Your task to perform on an android device: Go to battery settings Image 0: 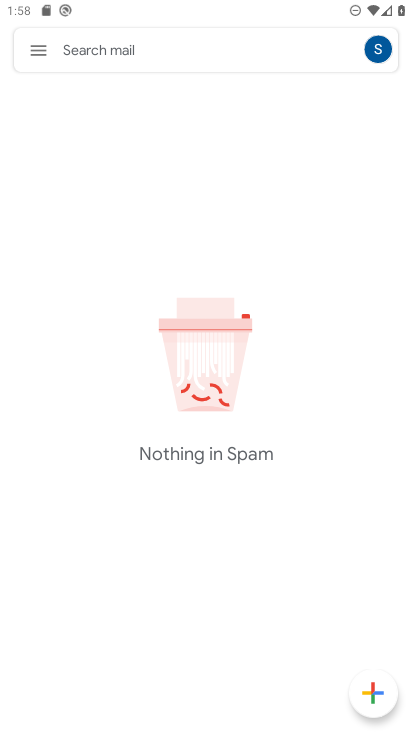
Step 0: press home button
Your task to perform on an android device: Go to battery settings Image 1: 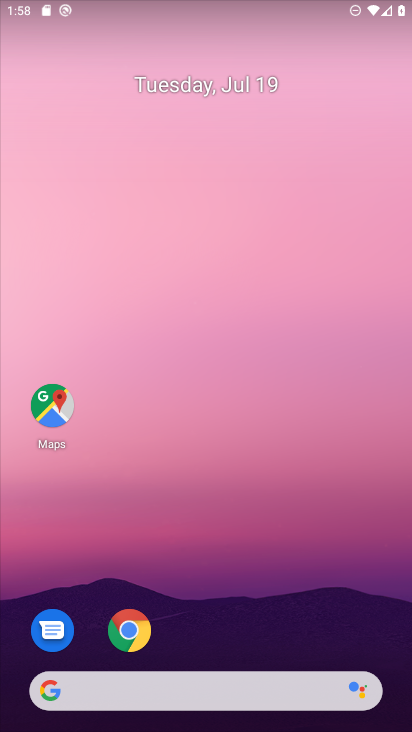
Step 1: drag from (188, 677) to (273, 87)
Your task to perform on an android device: Go to battery settings Image 2: 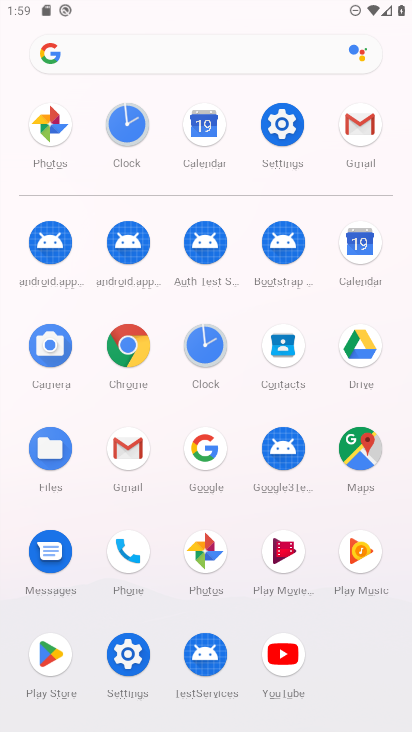
Step 2: click (292, 120)
Your task to perform on an android device: Go to battery settings Image 3: 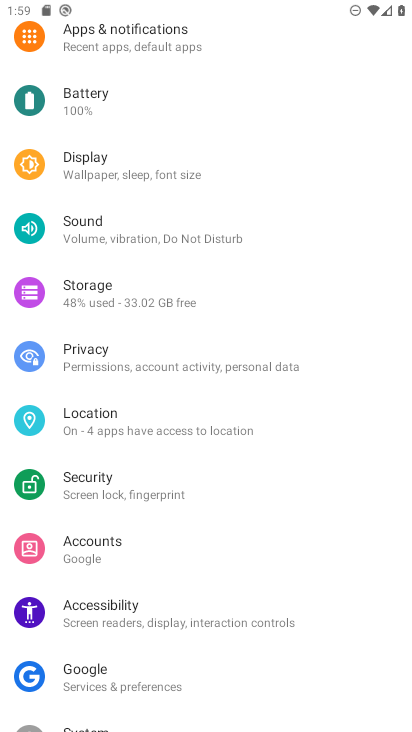
Step 3: click (89, 92)
Your task to perform on an android device: Go to battery settings Image 4: 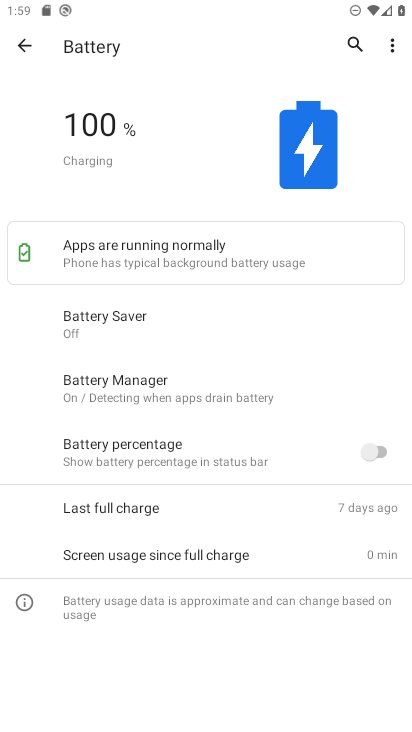
Step 4: task complete